Your task to perform on an android device: turn off javascript in the chrome app Image 0: 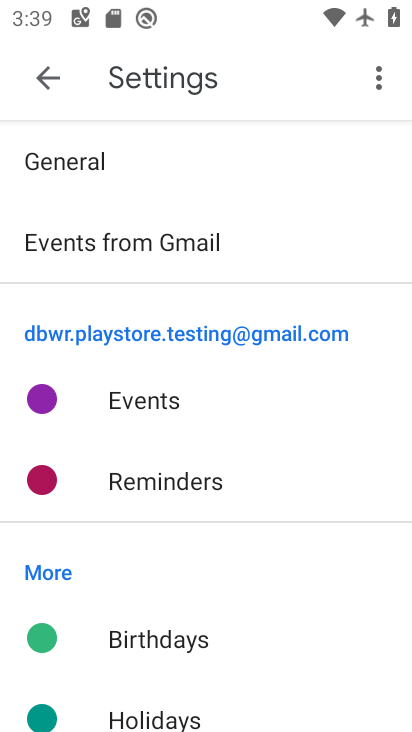
Step 0: press home button
Your task to perform on an android device: turn off javascript in the chrome app Image 1: 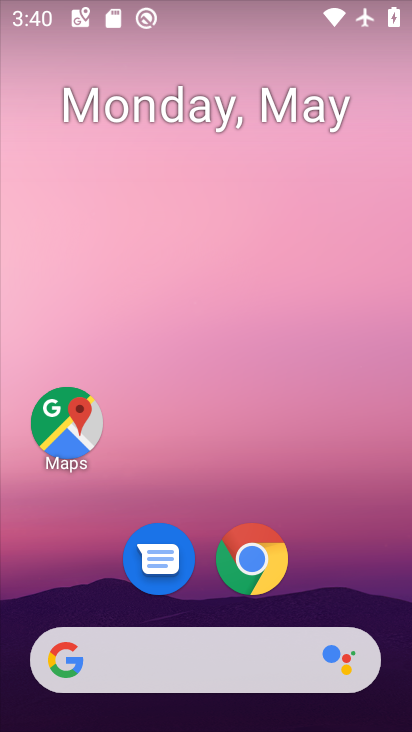
Step 1: click (271, 553)
Your task to perform on an android device: turn off javascript in the chrome app Image 2: 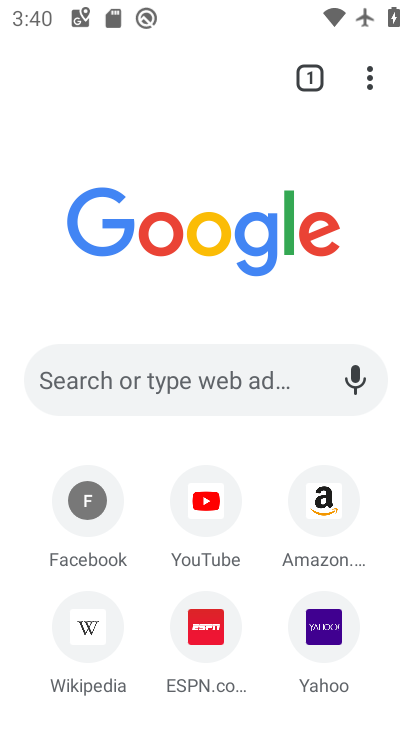
Step 2: click (368, 86)
Your task to perform on an android device: turn off javascript in the chrome app Image 3: 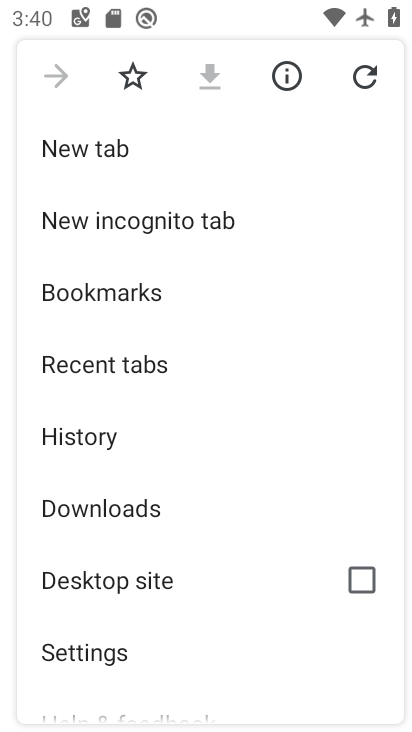
Step 3: drag from (122, 606) to (119, 330)
Your task to perform on an android device: turn off javascript in the chrome app Image 4: 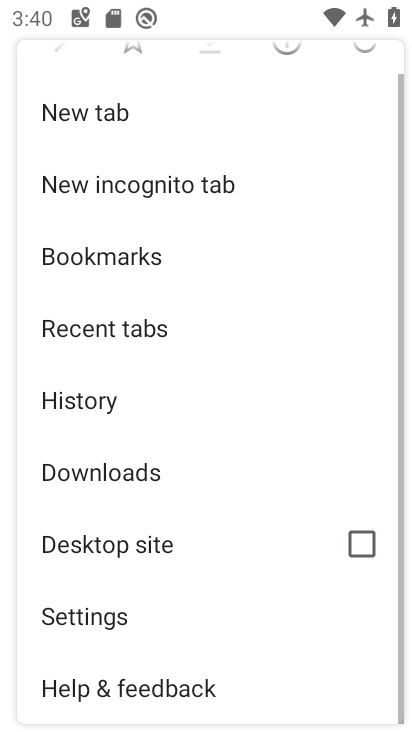
Step 4: click (86, 621)
Your task to perform on an android device: turn off javascript in the chrome app Image 5: 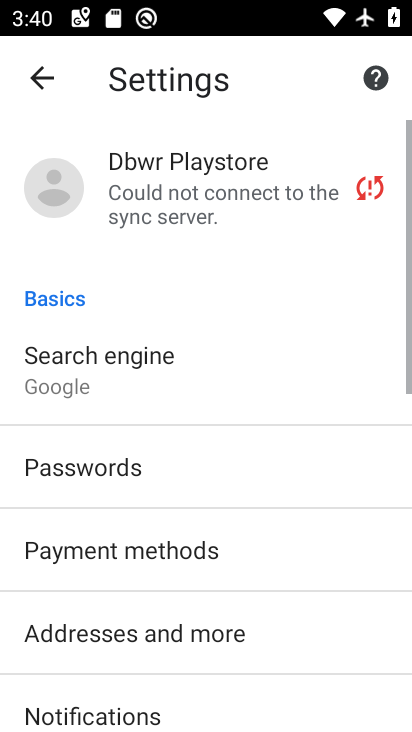
Step 5: drag from (231, 676) to (239, 459)
Your task to perform on an android device: turn off javascript in the chrome app Image 6: 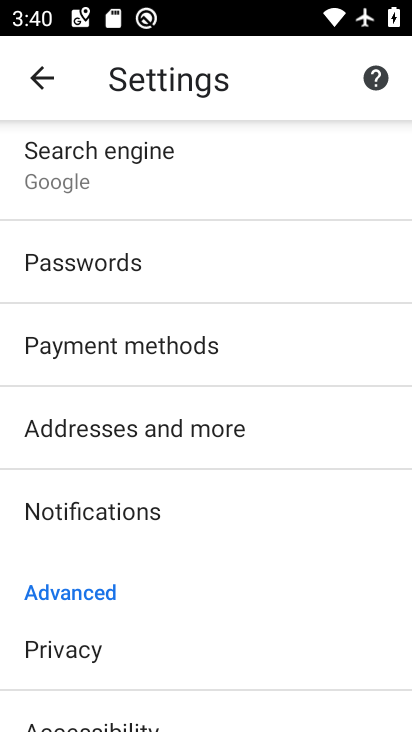
Step 6: drag from (177, 611) to (180, 369)
Your task to perform on an android device: turn off javascript in the chrome app Image 7: 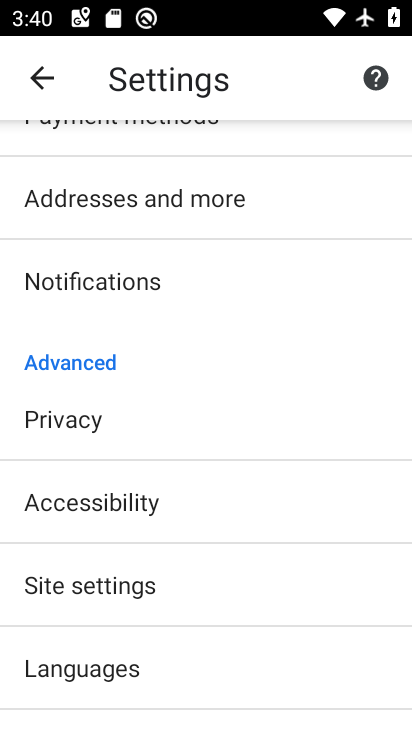
Step 7: click (95, 588)
Your task to perform on an android device: turn off javascript in the chrome app Image 8: 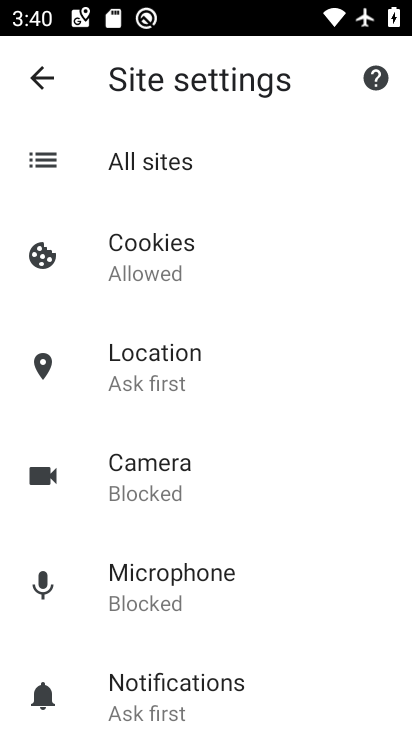
Step 8: drag from (218, 674) to (238, 420)
Your task to perform on an android device: turn off javascript in the chrome app Image 9: 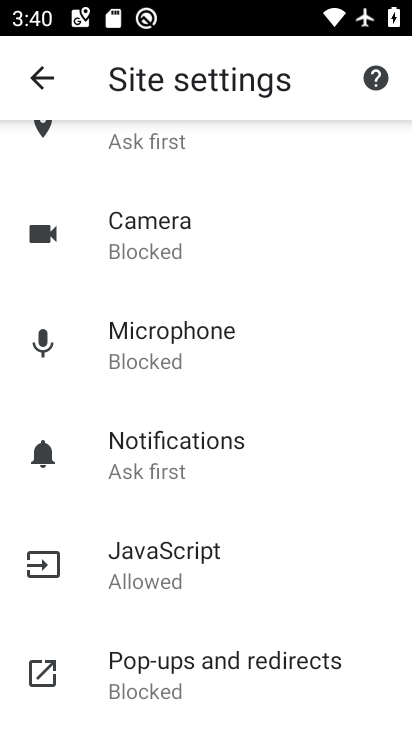
Step 9: click (156, 575)
Your task to perform on an android device: turn off javascript in the chrome app Image 10: 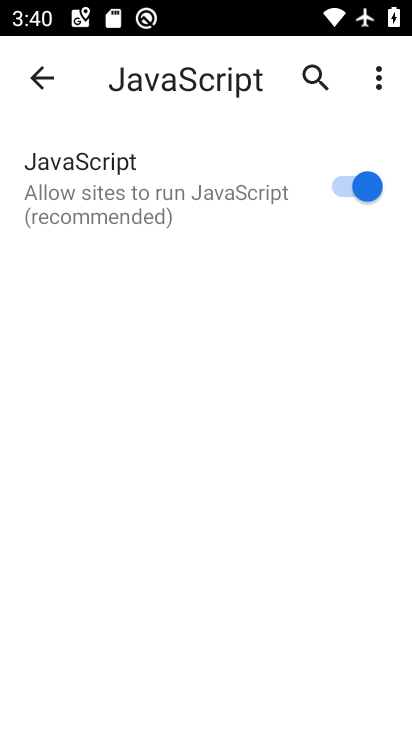
Step 10: click (350, 193)
Your task to perform on an android device: turn off javascript in the chrome app Image 11: 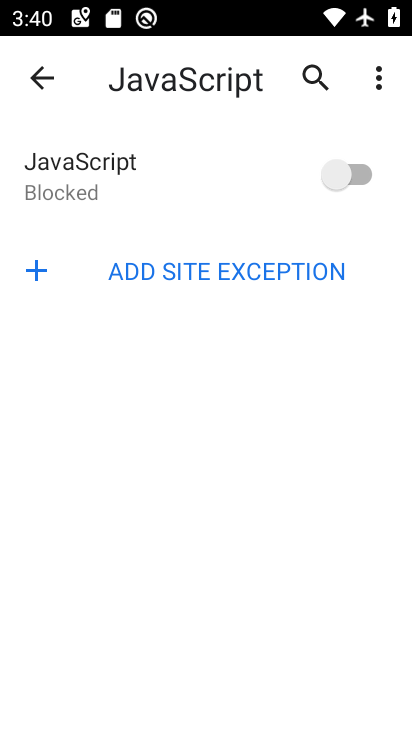
Step 11: task complete